Your task to perform on an android device: check battery use Image 0: 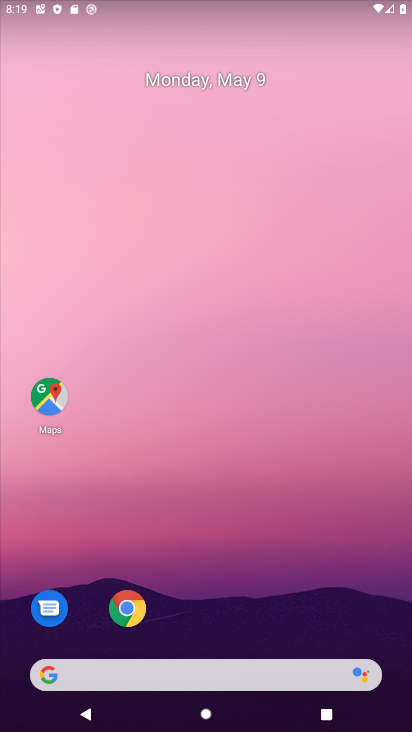
Step 0: drag from (185, 638) to (384, 1)
Your task to perform on an android device: check battery use Image 1: 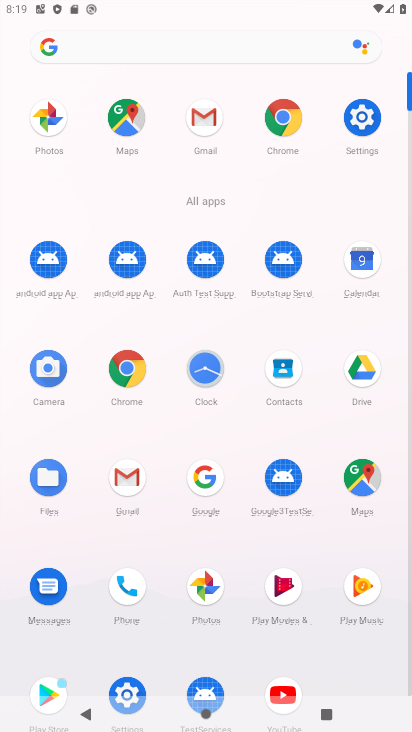
Step 1: click (142, 689)
Your task to perform on an android device: check battery use Image 2: 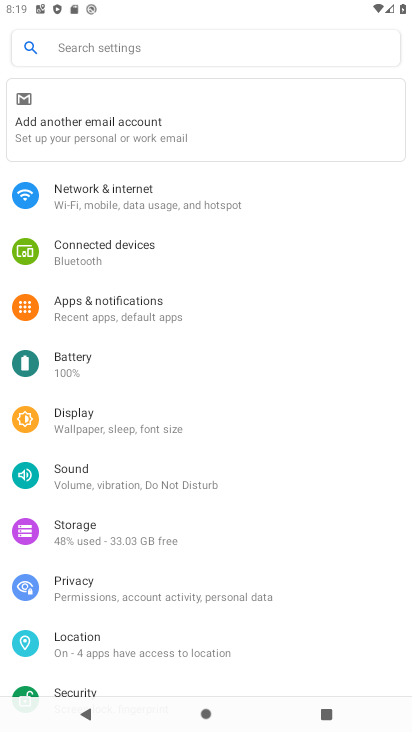
Step 2: click (133, 363)
Your task to perform on an android device: check battery use Image 3: 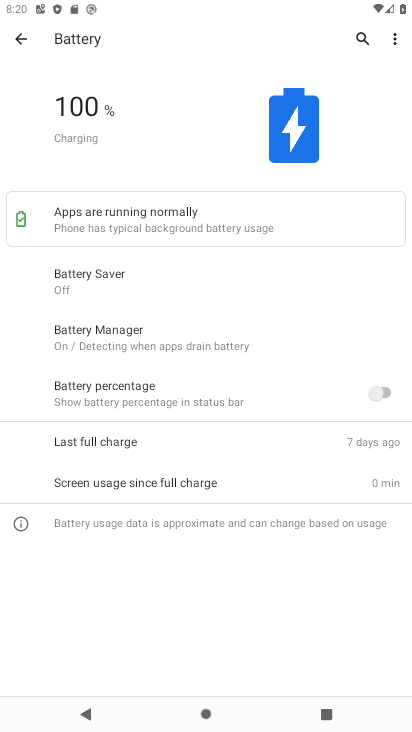
Step 3: click (396, 36)
Your task to perform on an android device: check battery use Image 4: 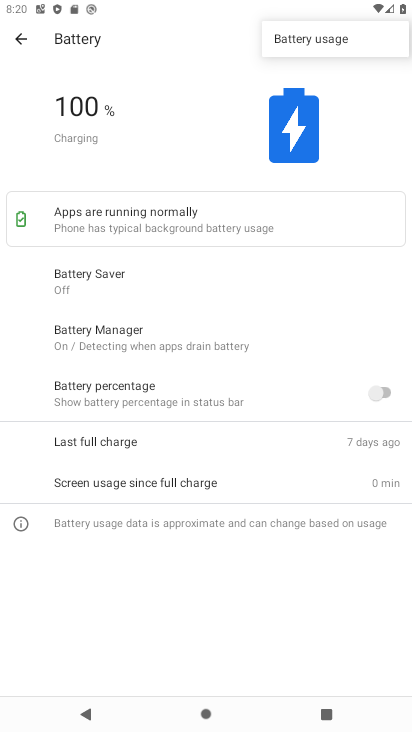
Step 4: click (387, 40)
Your task to perform on an android device: check battery use Image 5: 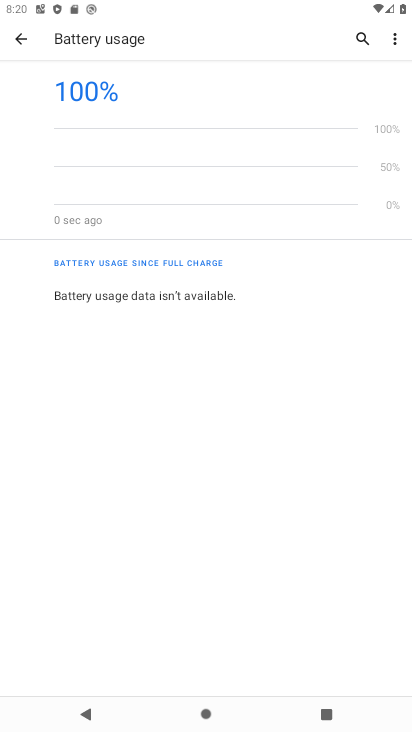
Step 5: task complete